Your task to perform on an android device: clear history in the chrome app Image 0: 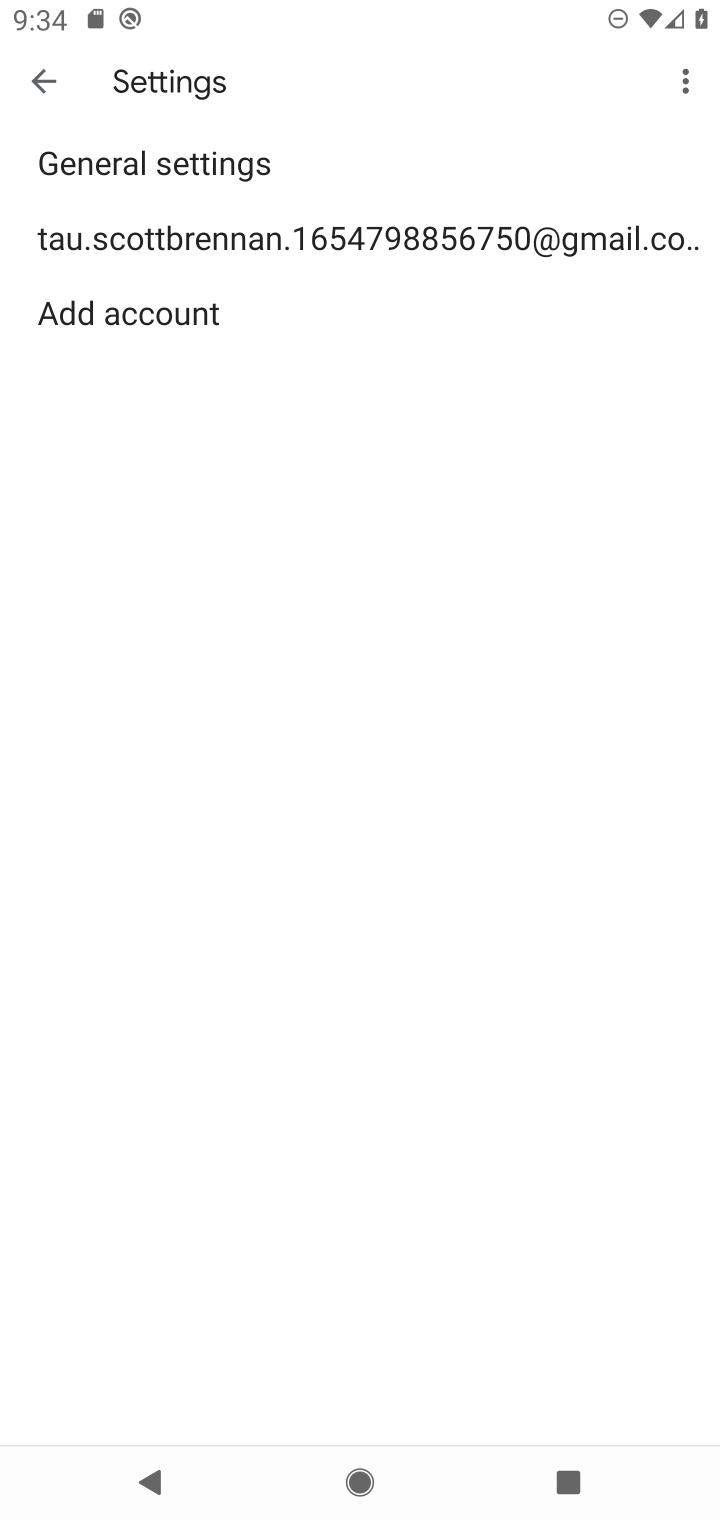
Step 0: press home button
Your task to perform on an android device: clear history in the chrome app Image 1: 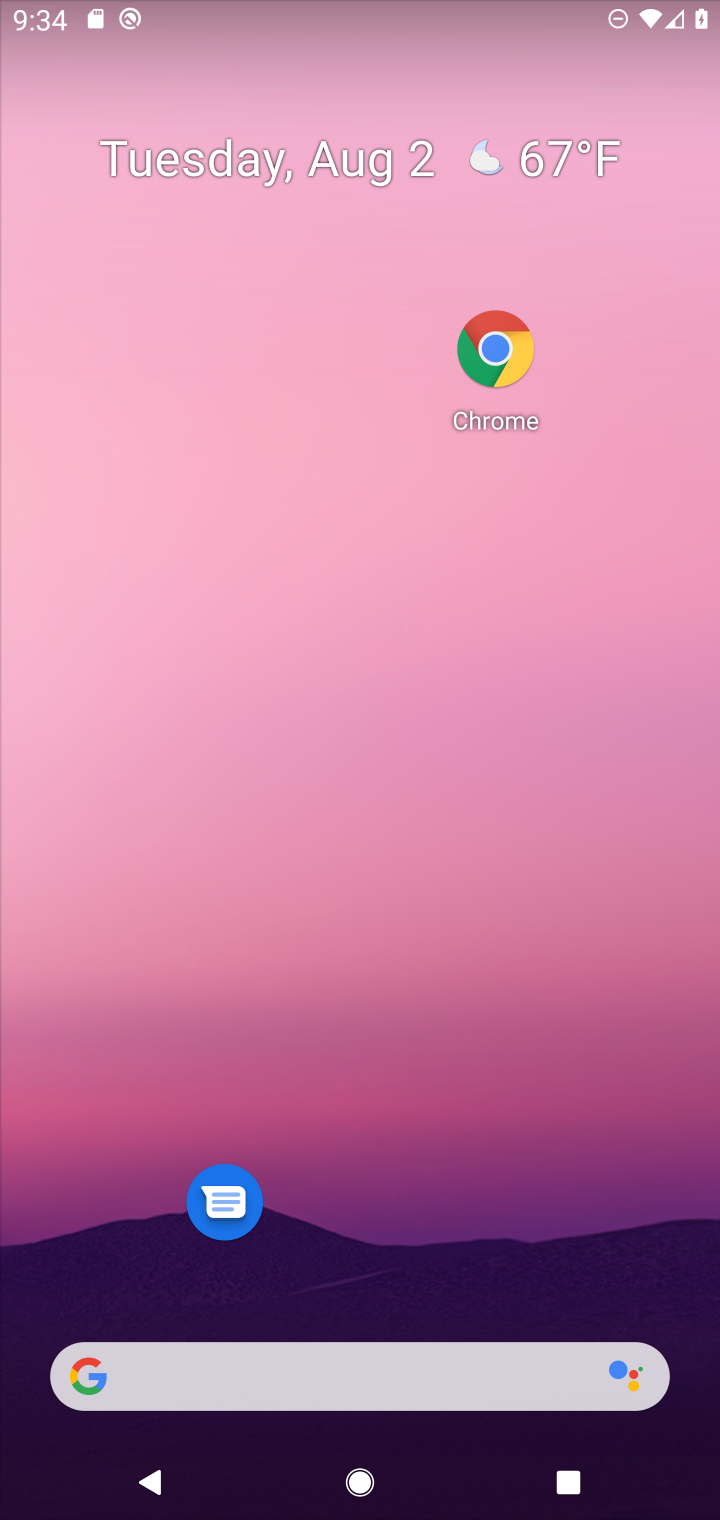
Step 1: click (495, 362)
Your task to perform on an android device: clear history in the chrome app Image 2: 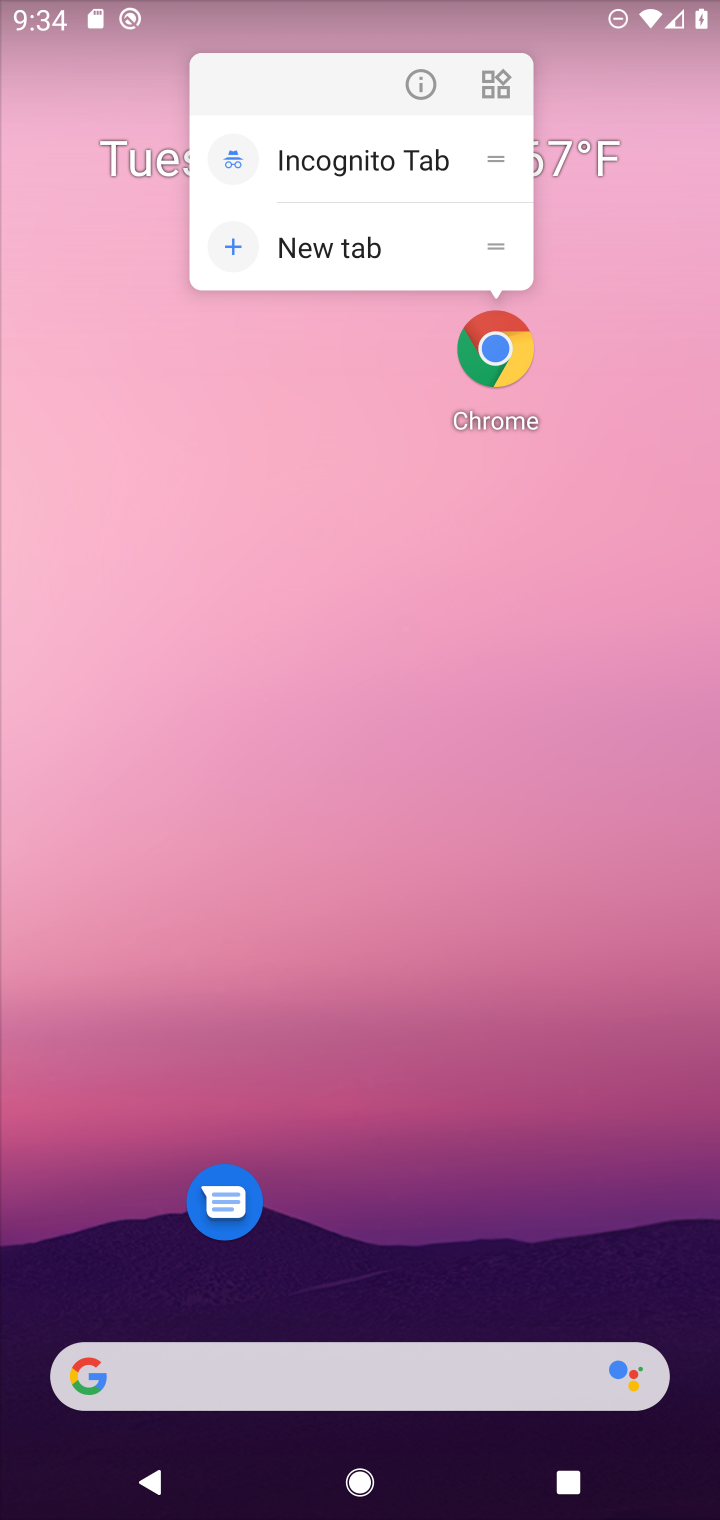
Step 2: click (495, 362)
Your task to perform on an android device: clear history in the chrome app Image 3: 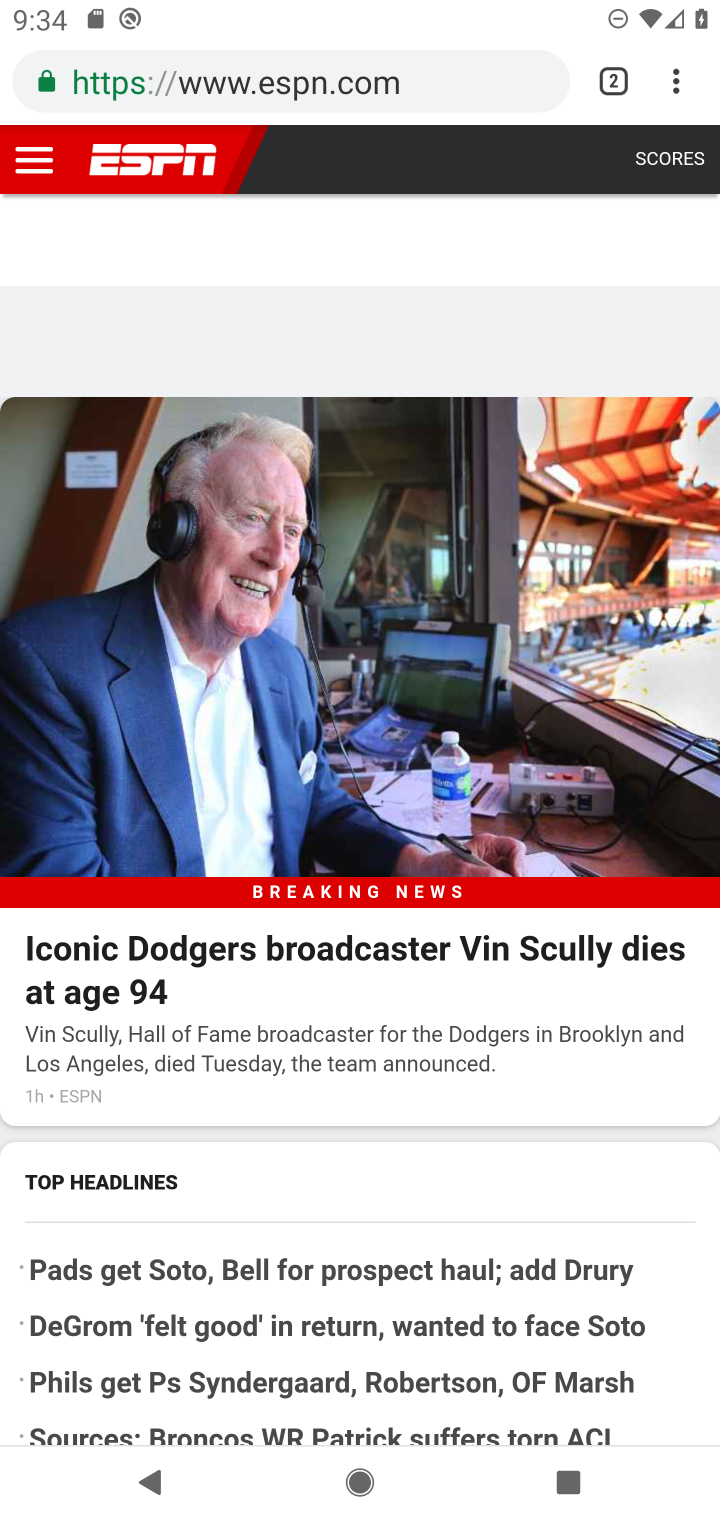
Step 3: drag from (678, 86) to (377, 986)
Your task to perform on an android device: clear history in the chrome app Image 4: 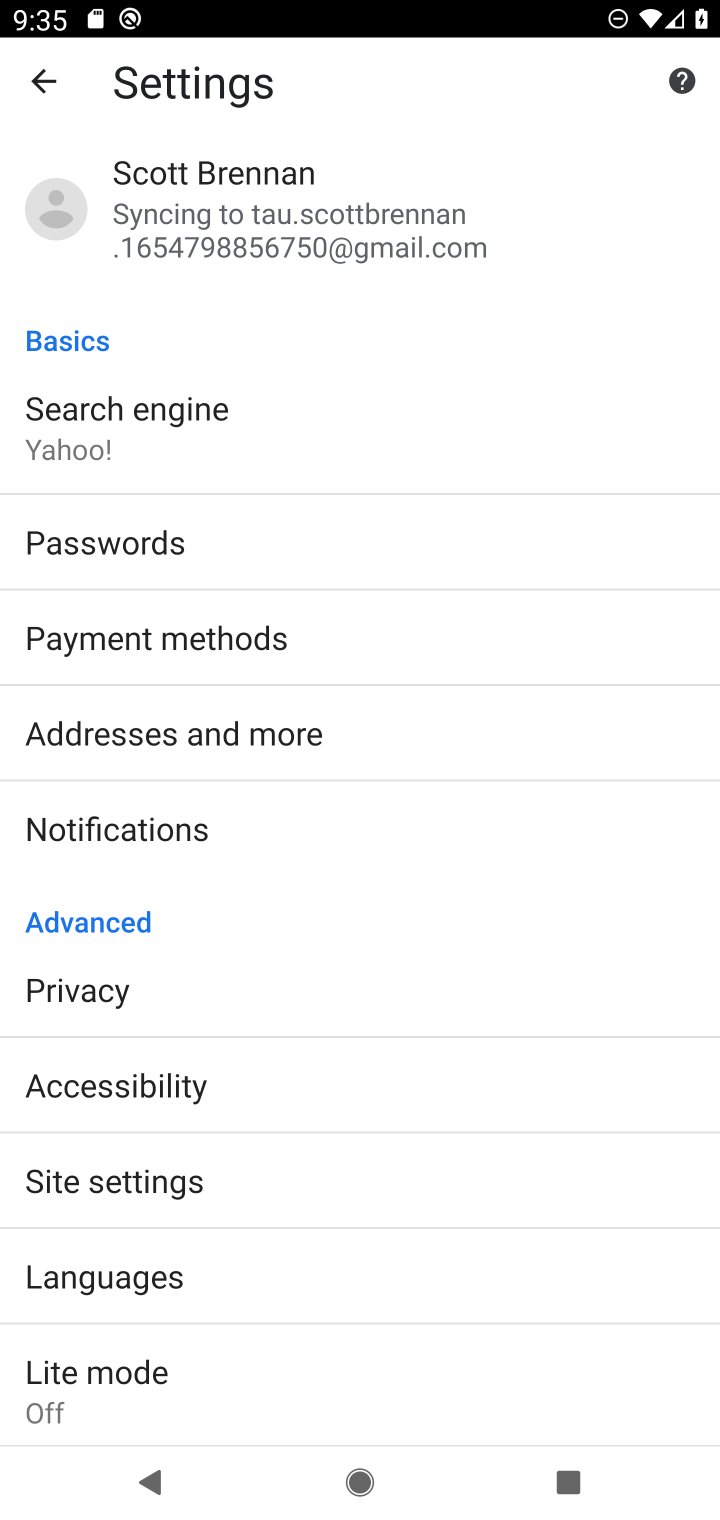
Step 4: click (95, 984)
Your task to perform on an android device: clear history in the chrome app Image 5: 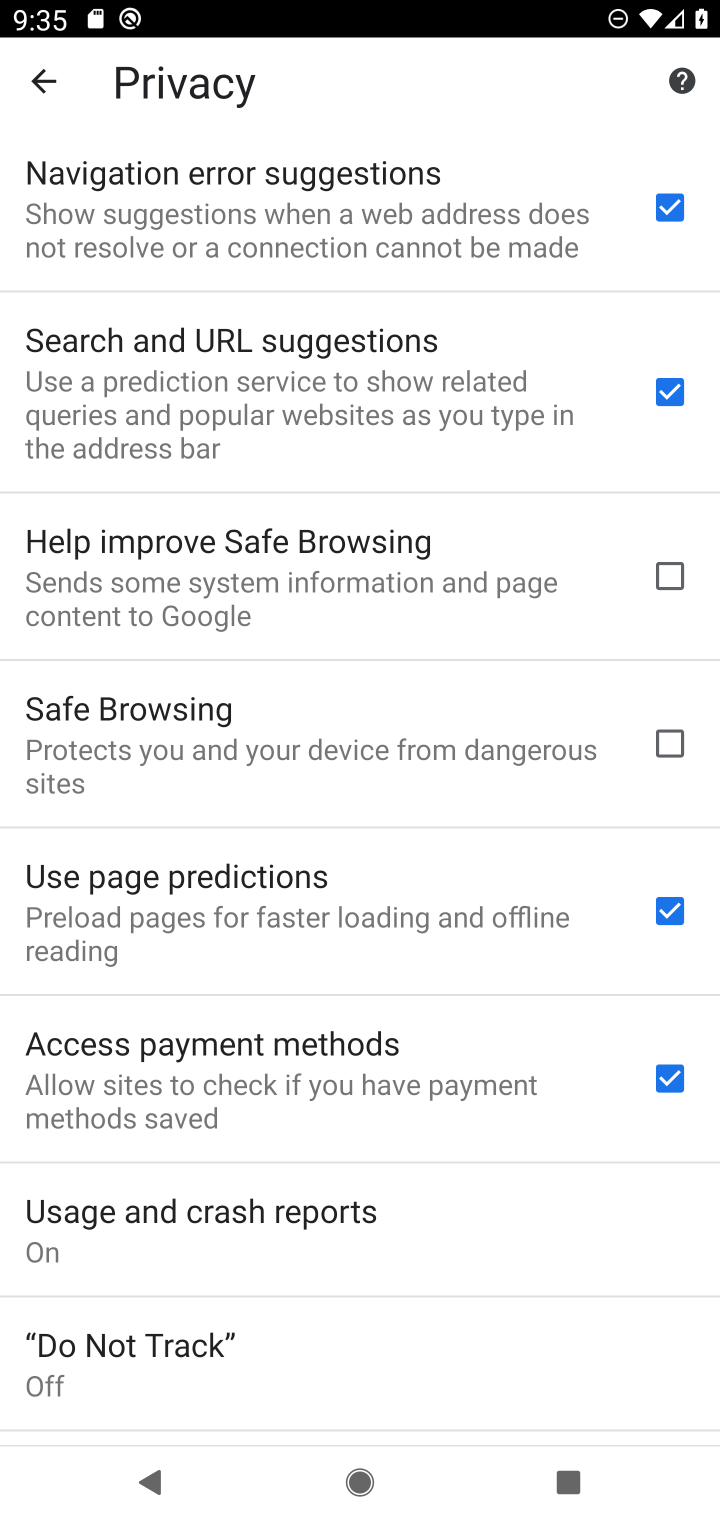
Step 5: drag from (490, 1303) to (407, 535)
Your task to perform on an android device: clear history in the chrome app Image 6: 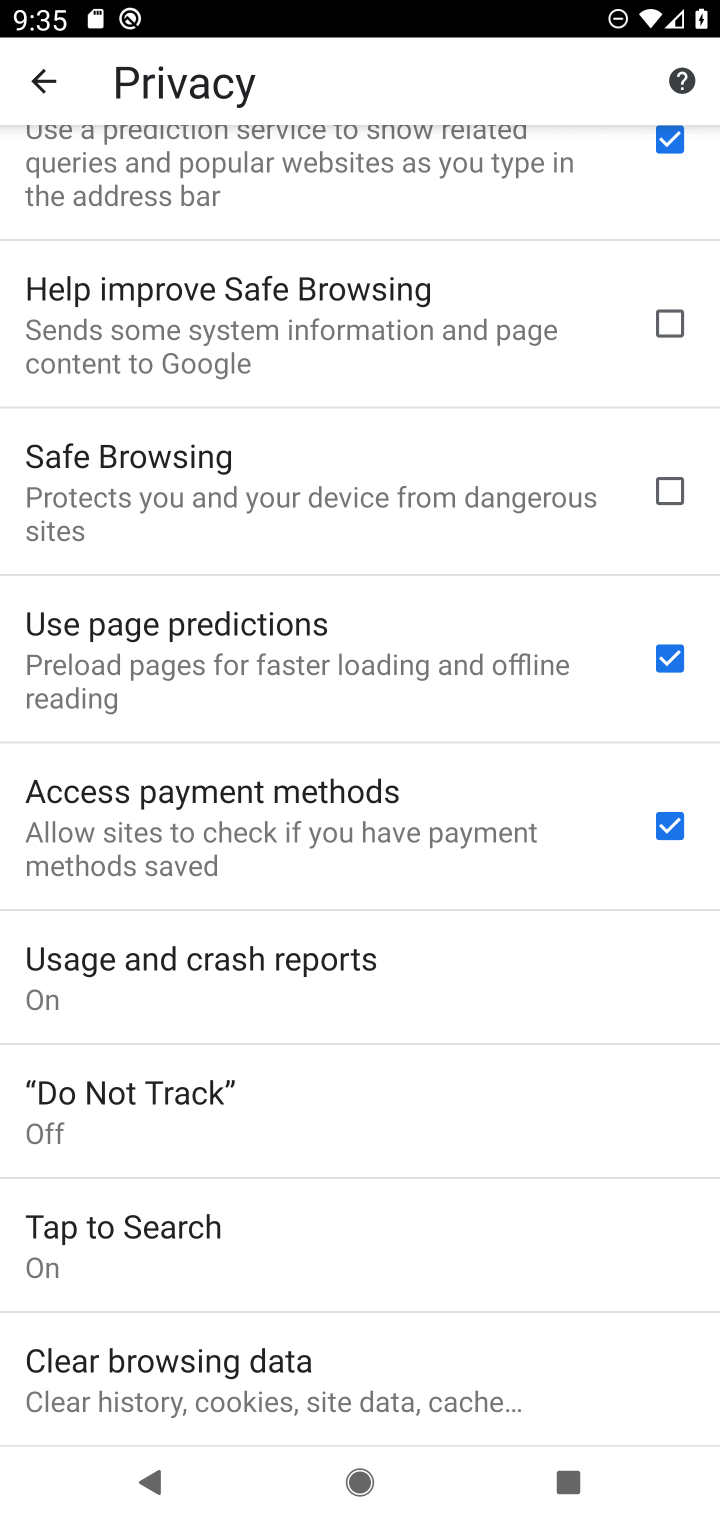
Step 6: click (256, 1371)
Your task to perform on an android device: clear history in the chrome app Image 7: 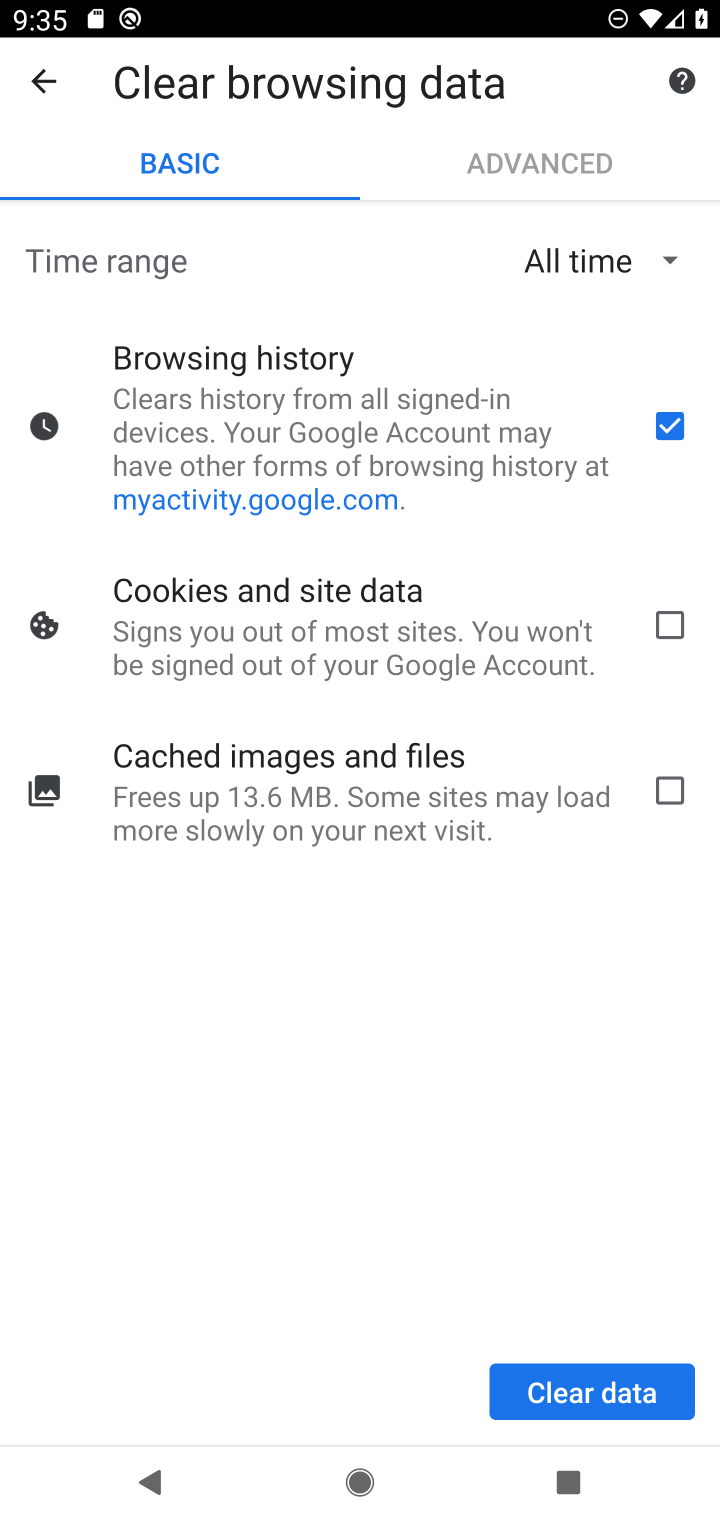
Step 7: click (544, 1395)
Your task to perform on an android device: clear history in the chrome app Image 8: 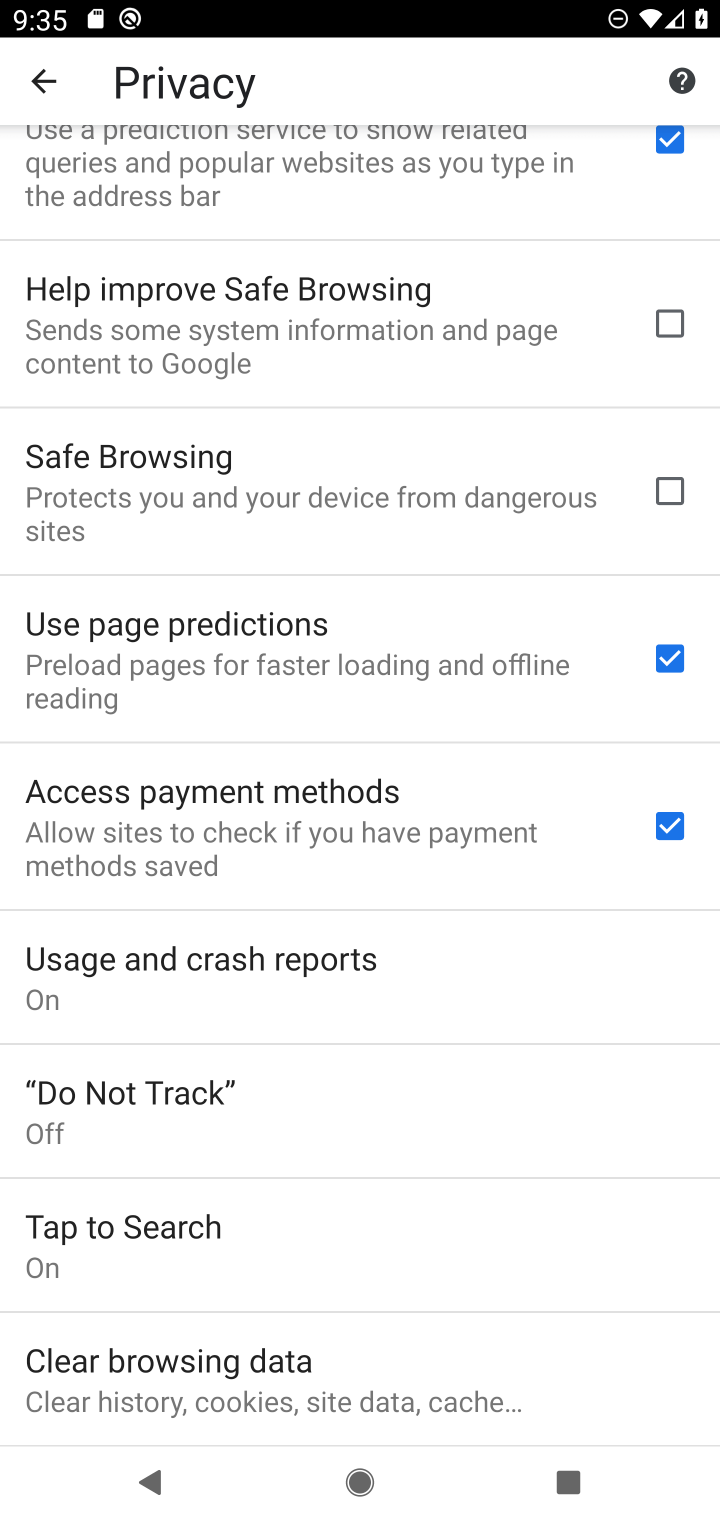
Step 8: task complete